Your task to perform on an android device: turn off improve location accuracy Image 0: 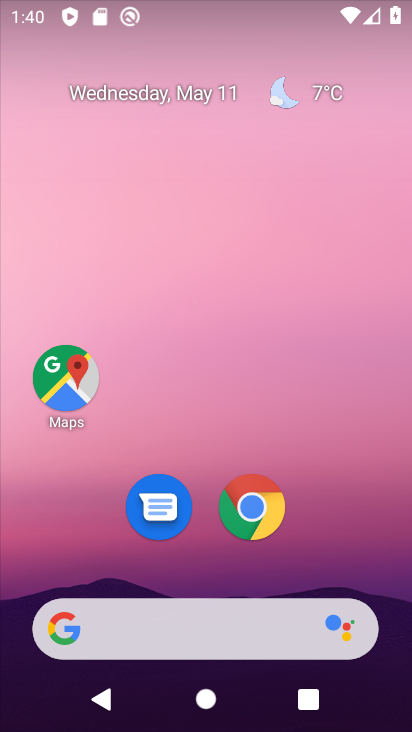
Step 0: drag from (325, 513) to (271, 78)
Your task to perform on an android device: turn off improve location accuracy Image 1: 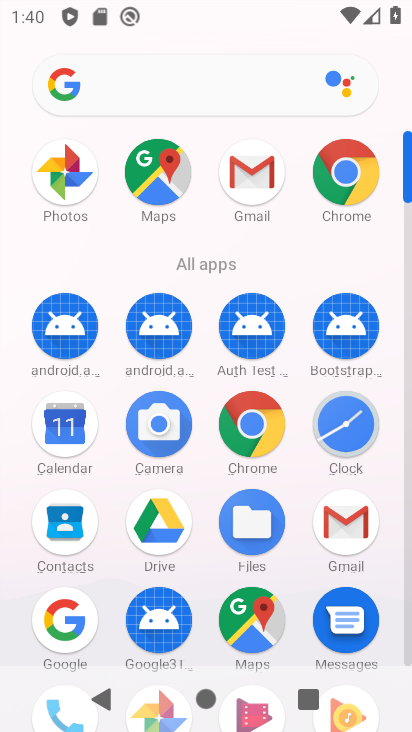
Step 1: drag from (6, 545) to (10, 299)
Your task to perform on an android device: turn off improve location accuracy Image 2: 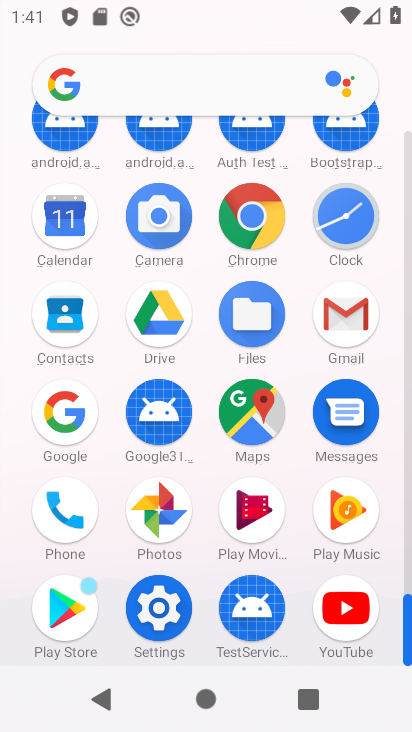
Step 2: click (163, 607)
Your task to perform on an android device: turn off improve location accuracy Image 3: 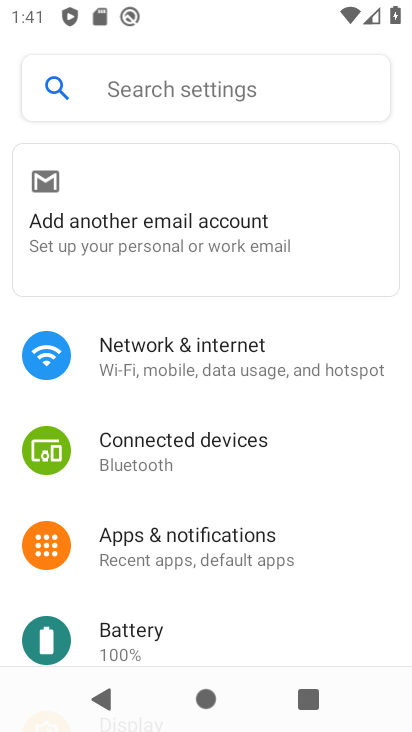
Step 3: drag from (321, 554) to (312, 179)
Your task to perform on an android device: turn off improve location accuracy Image 4: 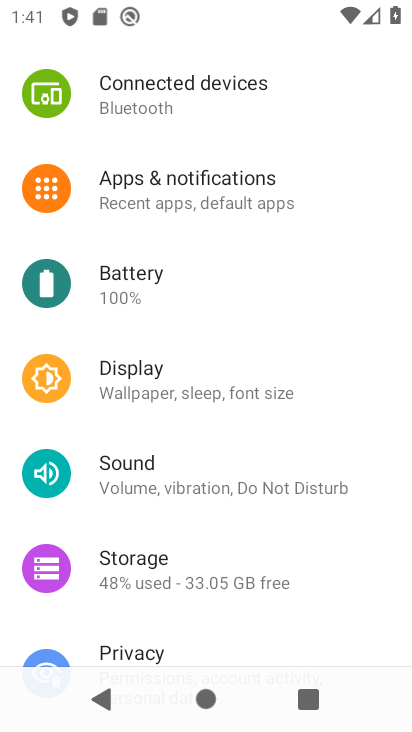
Step 4: drag from (299, 509) to (303, 161)
Your task to perform on an android device: turn off improve location accuracy Image 5: 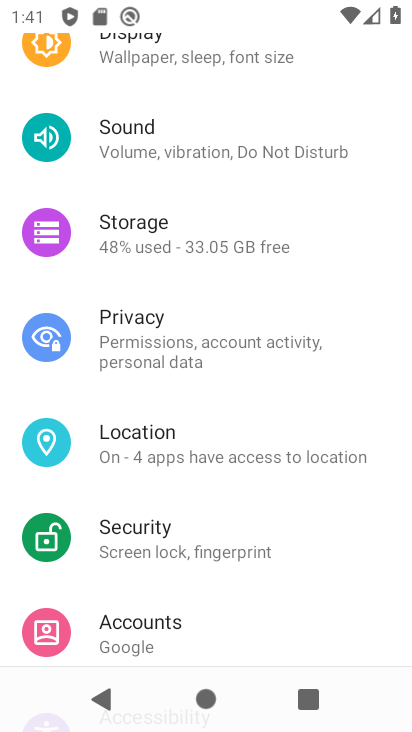
Step 5: click (185, 421)
Your task to perform on an android device: turn off improve location accuracy Image 6: 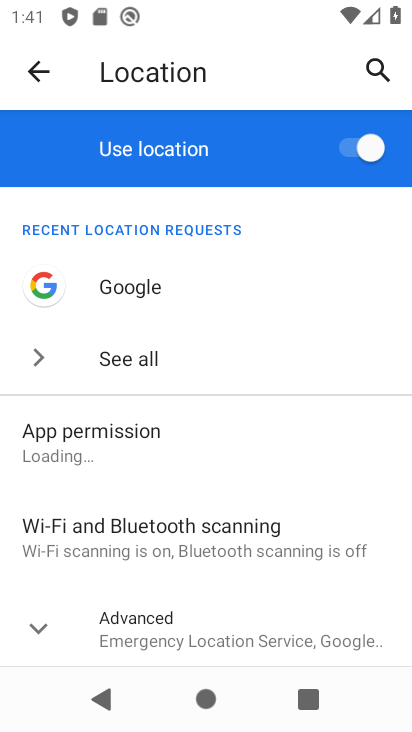
Step 6: click (54, 621)
Your task to perform on an android device: turn off improve location accuracy Image 7: 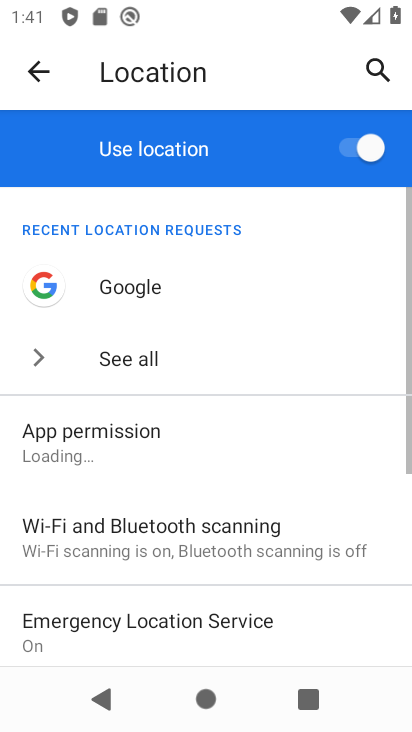
Step 7: drag from (270, 565) to (258, 181)
Your task to perform on an android device: turn off improve location accuracy Image 8: 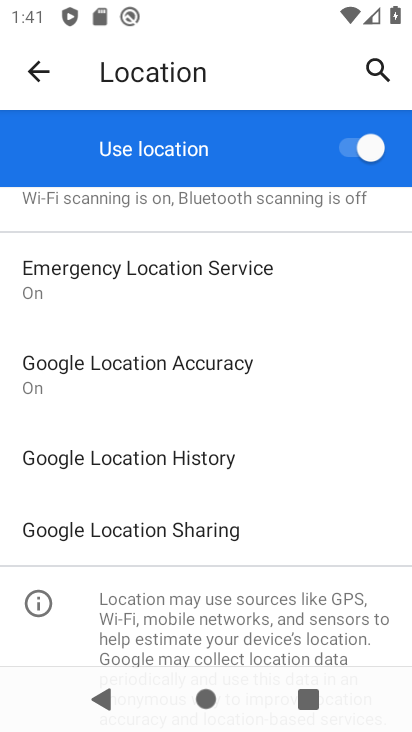
Step 8: click (199, 366)
Your task to perform on an android device: turn off improve location accuracy Image 9: 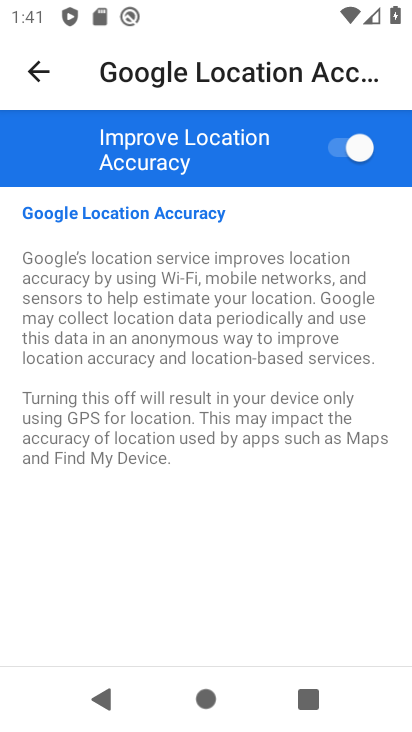
Step 9: click (328, 150)
Your task to perform on an android device: turn off improve location accuracy Image 10: 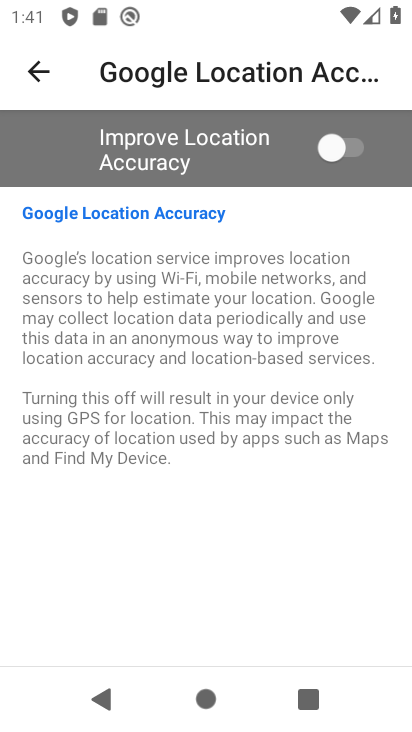
Step 10: task complete